Your task to perform on an android device: see sites visited before in the chrome app Image 0: 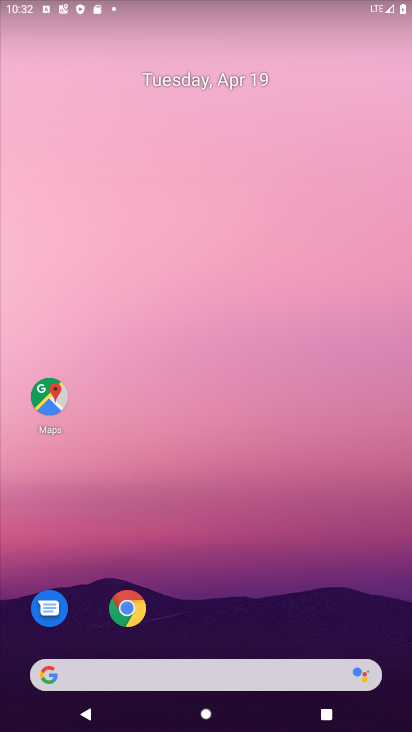
Step 0: click (126, 609)
Your task to perform on an android device: see sites visited before in the chrome app Image 1: 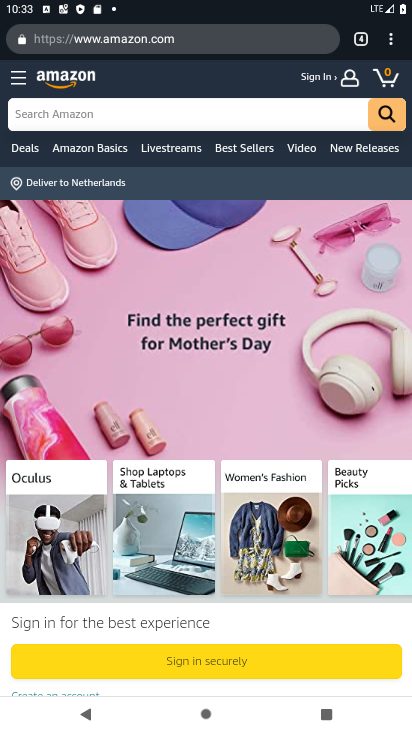
Step 1: click (389, 40)
Your task to perform on an android device: see sites visited before in the chrome app Image 2: 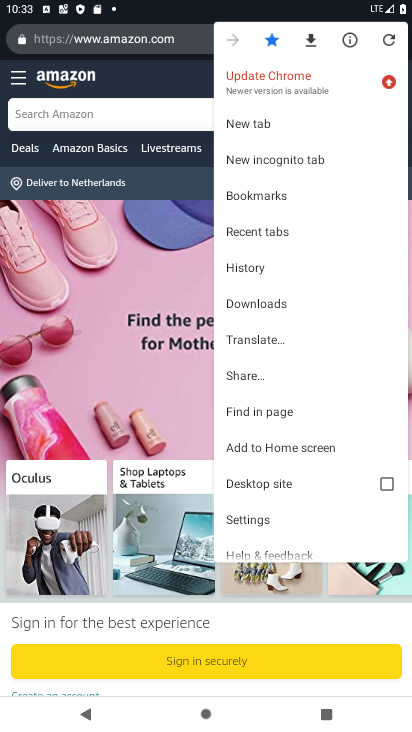
Step 2: click (253, 230)
Your task to perform on an android device: see sites visited before in the chrome app Image 3: 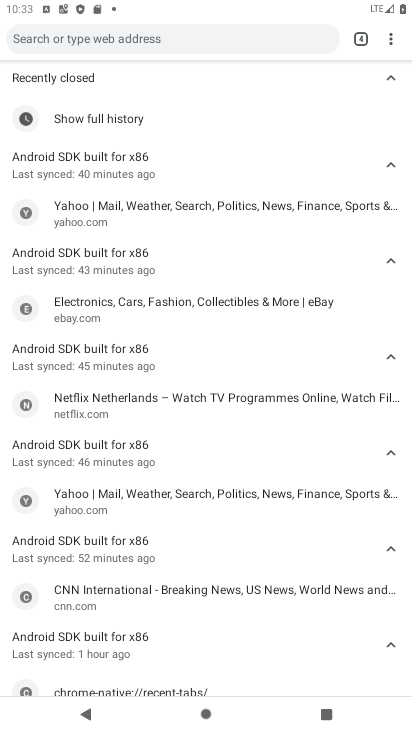
Step 3: click (111, 125)
Your task to perform on an android device: see sites visited before in the chrome app Image 4: 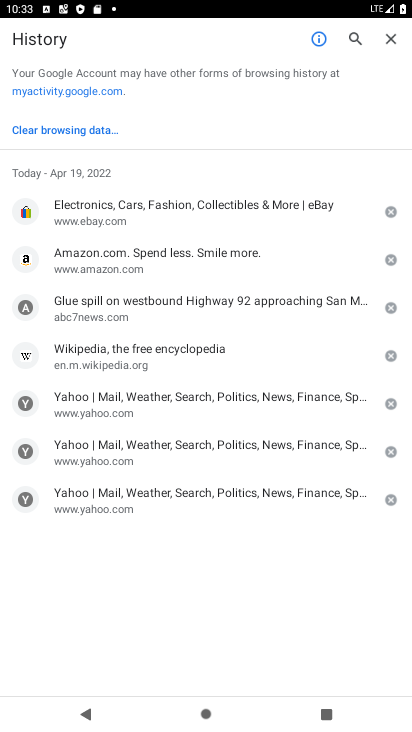
Step 4: task complete